Your task to perform on an android device: turn vacation reply on in the gmail app Image 0: 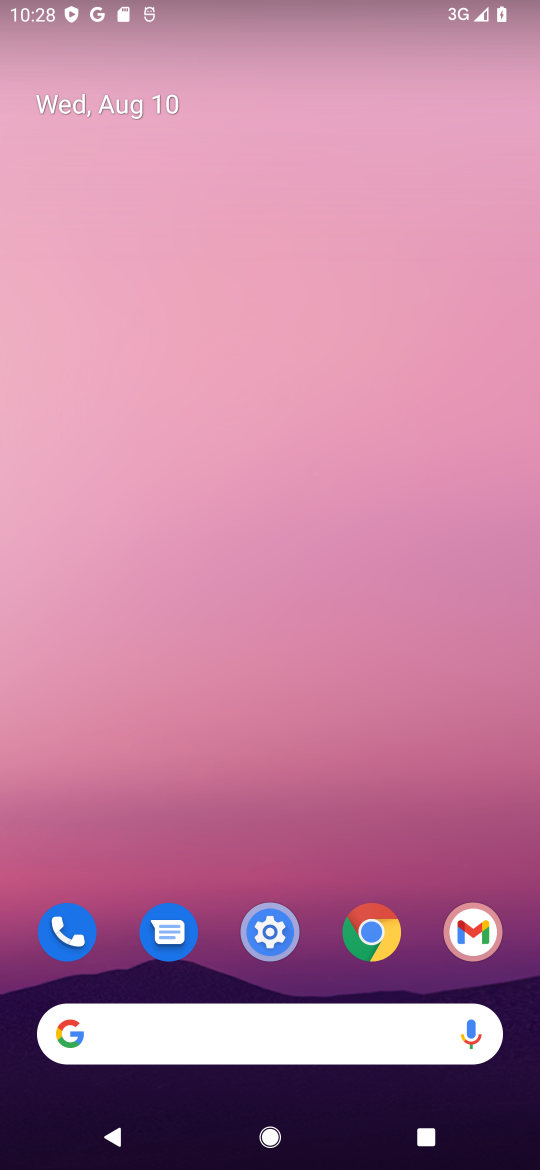
Step 0: click (455, 933)
Your task to perform on an android device: turn vacation reply on in the gmail app Image 1: 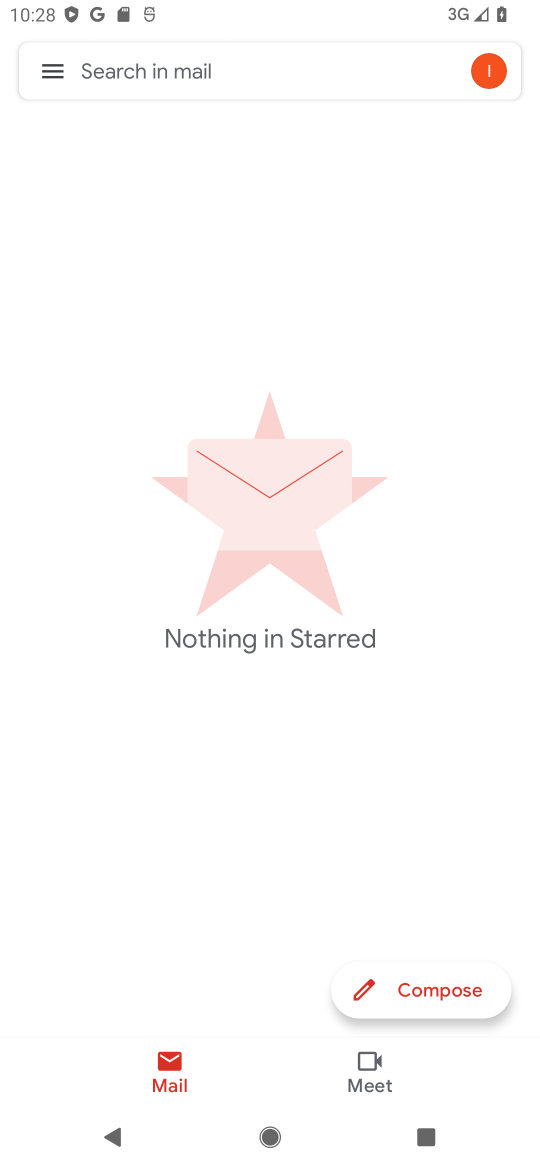
Step 1: click (48, 63)
Your task to perform on an android device: turn vacation reply on in the gmail app Image 2: 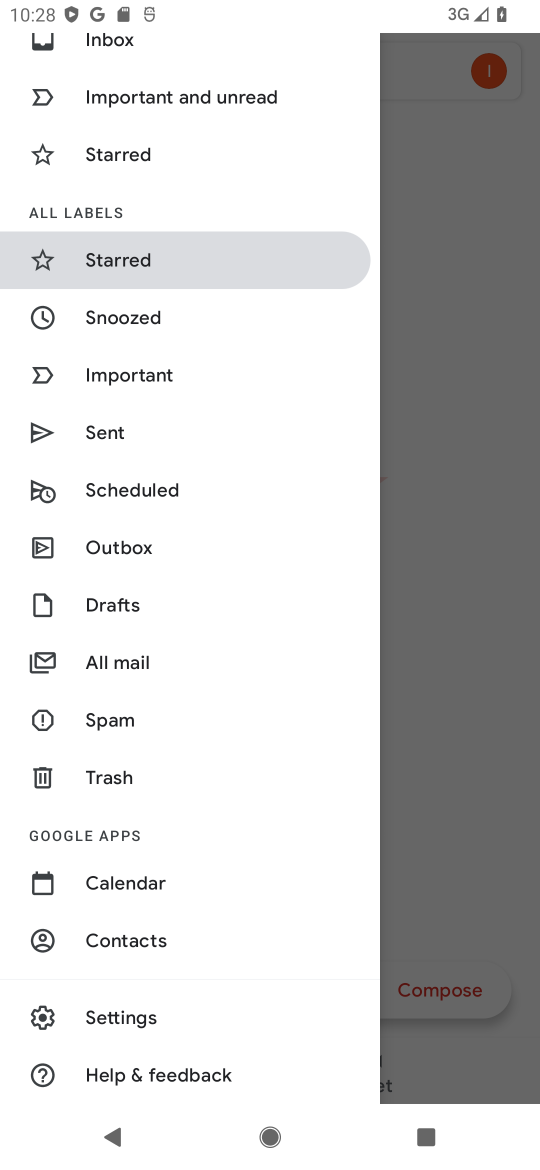
Step 2: click (114, 1008)
Your task to perform on an android device: turn vacation reply on in the gmail app Image 3: 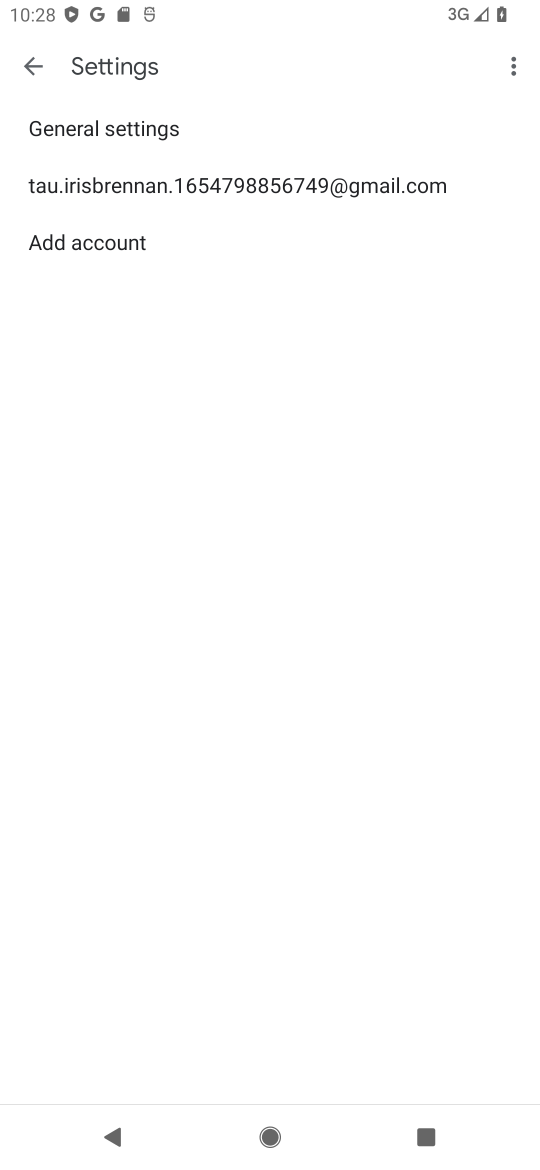
Step 3: click (130, 185)
Your task to perform on an android device: turn vacation reply on in the gmail app Image 4: 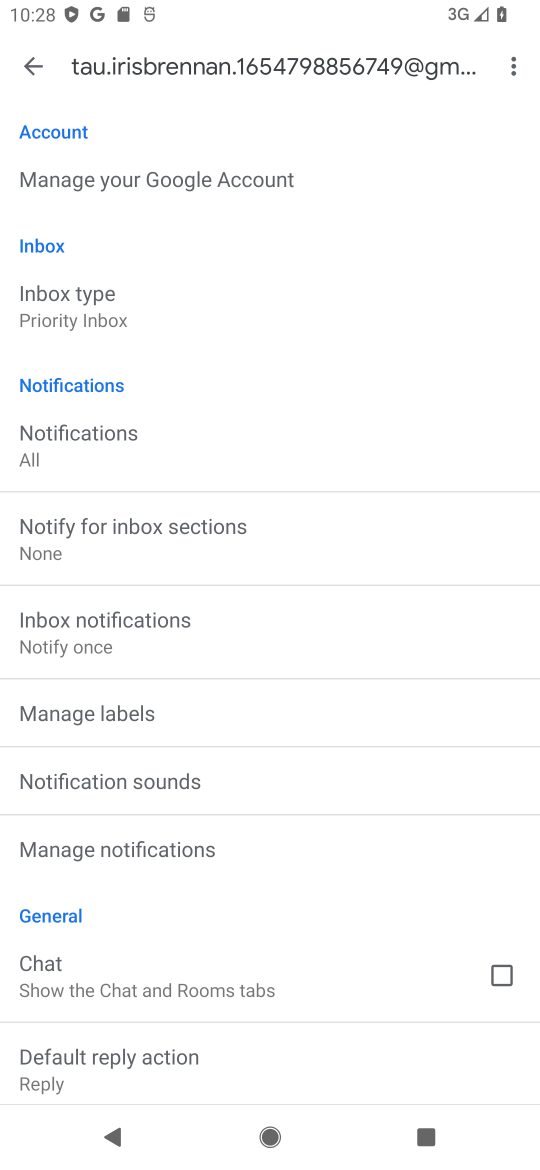
Step 4: drag from (332, 833) to (332, 305)
Your task to perform on an android device: turn vacation reply on in the gmail app Image 5: 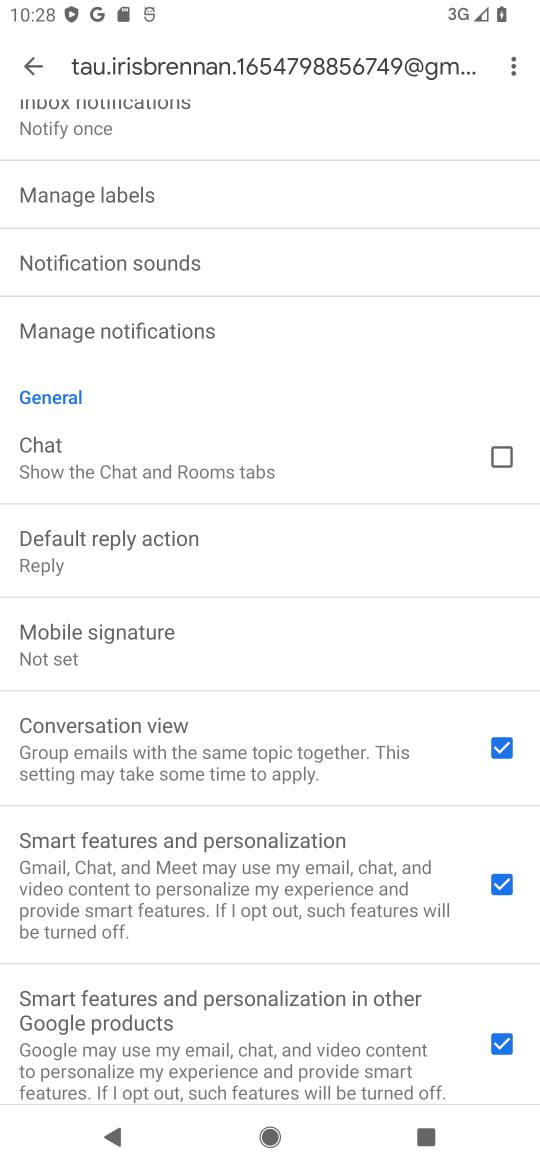
Step 5: drag from (289, 638) to (320, 138)
Your task to perform on an android device: turn vacation reply on in the gmail app Image 6: 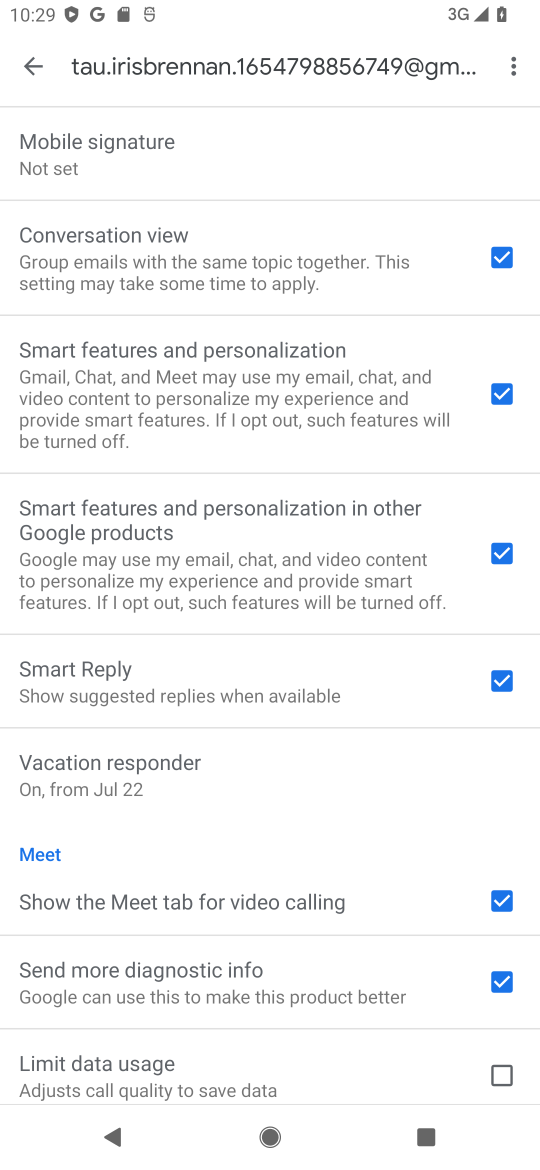
Step 6: click (154, 763)
Your task to perform on an android device: turn vacation reply on in the gmail app Image 7: 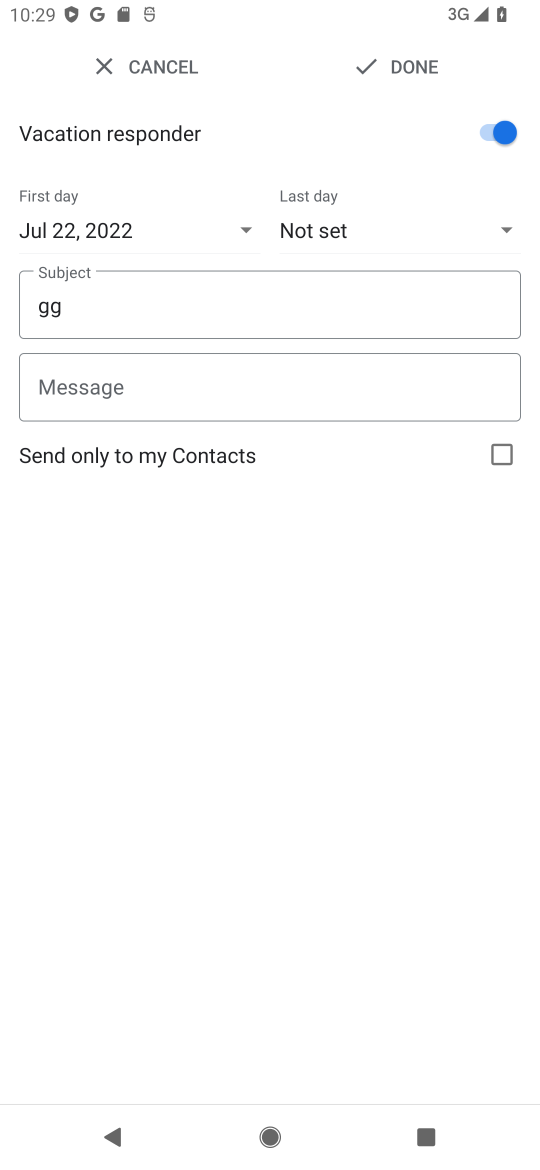
Step 7: task complete